Your task to perform on an android device: Open Google Chrome and open the bookmarks view Image 0: 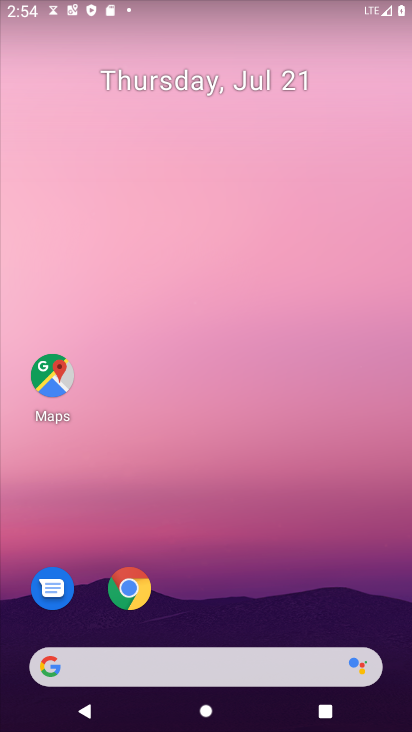
Step 0: drag from (232, 602) to (308, 138)
Your task to perform on an android device: Open Google Chrome and open the bookmarks view Image 1: 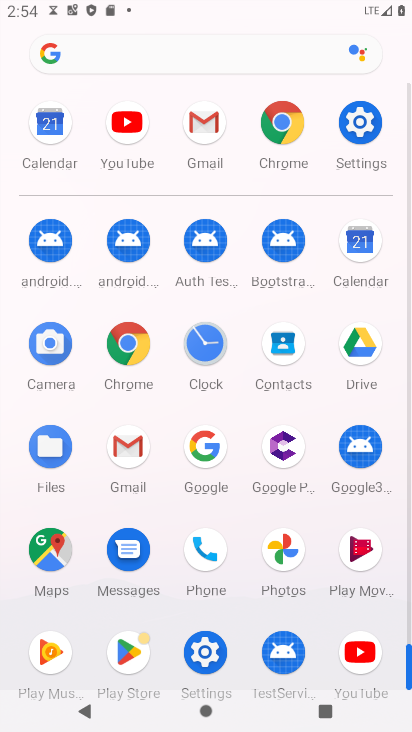
Step 1: drag from (241, 605) to (239, 151)
Your task to perform on an android device: Open Google Chrome and open the bookmarks view Image 2: 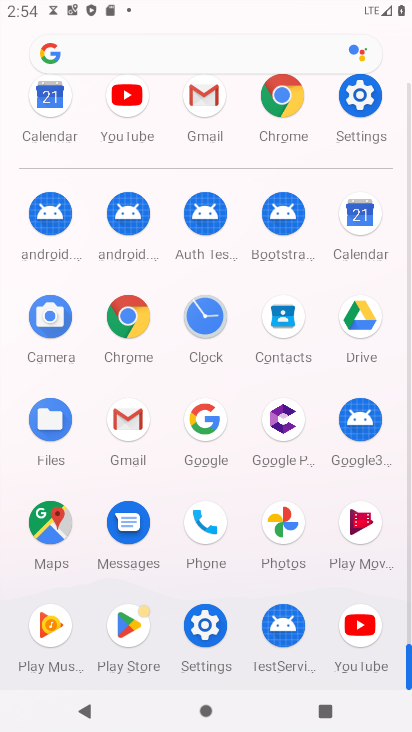
Step 2: drag from (149, 589) to (98, 0)
Your task to perform on an android device: Open Google Chrome and open the bookmarks view Image 3: 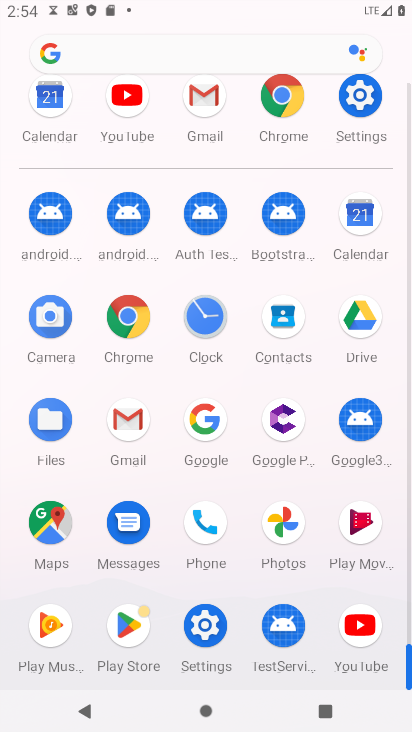
Step 3: click (128, 311)
Your task to perform on an android device: Open Google Chrome and open the bookmarks view Image 4: 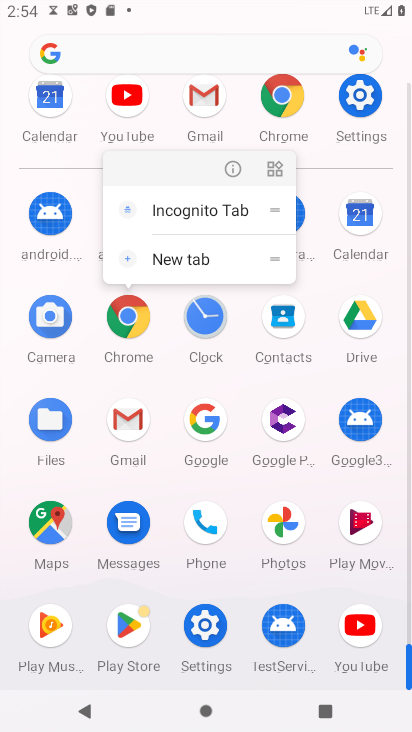
Step 4: click (235, 171)
Your task to perform on an android device: Open Google Chrome and open the bookmarks view Image 5: 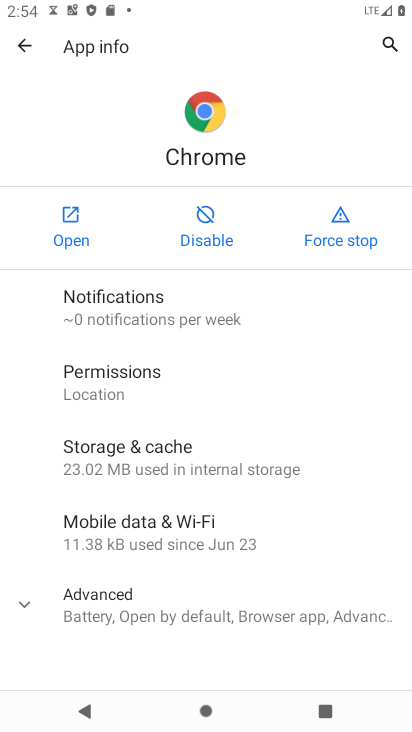
Step 5: click (67, 218)
Your task to perform on an android device: Open Google Chrome and open the bookmarks view Image 6: 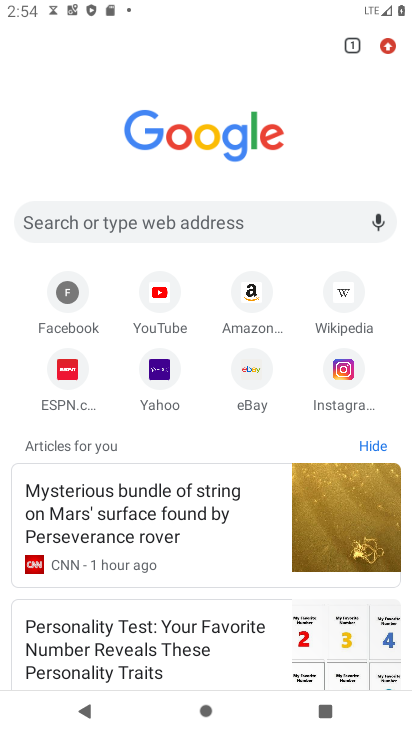
Step 6: task complete